Your task to perform on an android device: turn on sleep mode Image 0: 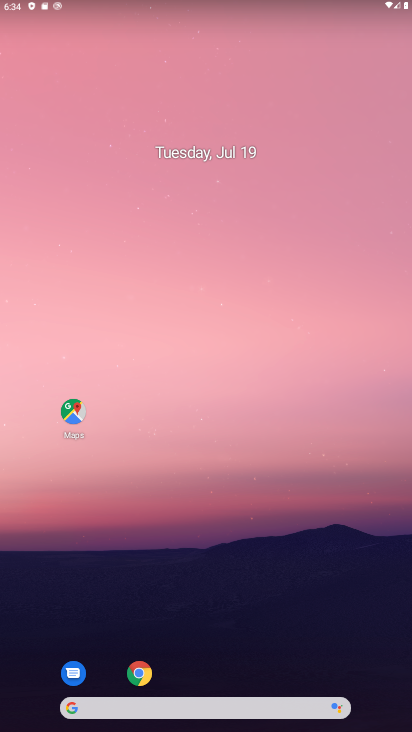
Step 0: drag from (289, 670) to (197, 34)
Your task to perform on an android device: turn on sleep mode Image 1: 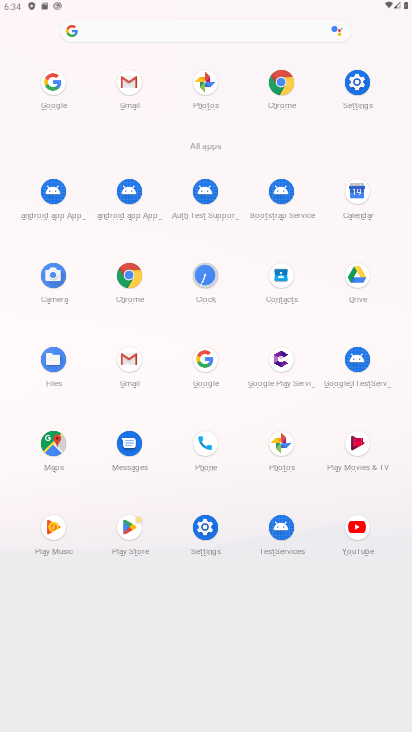
Step 1: click (201, 539)
Your task to perform on an android device: turn on sleep mode Image 2: 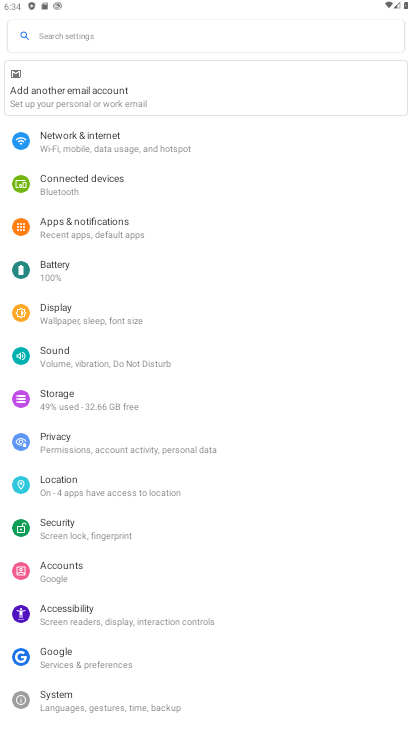
Step 2: task complete